Your task to perform on an android device: Go to Google maps Image 0: 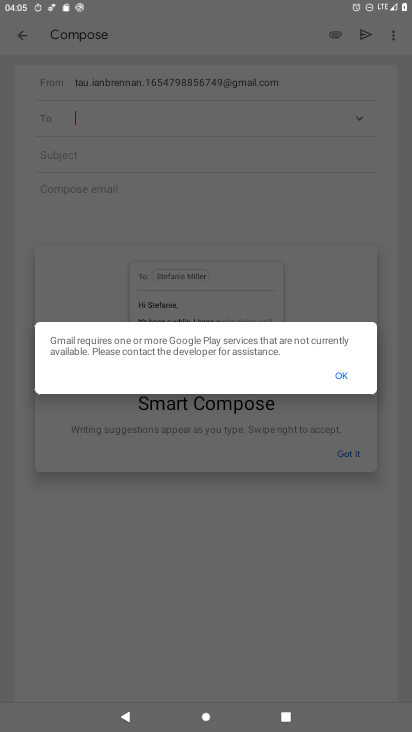
Step 0: press home button
Your task to perform on an android device: Go to Google maps Image 1: 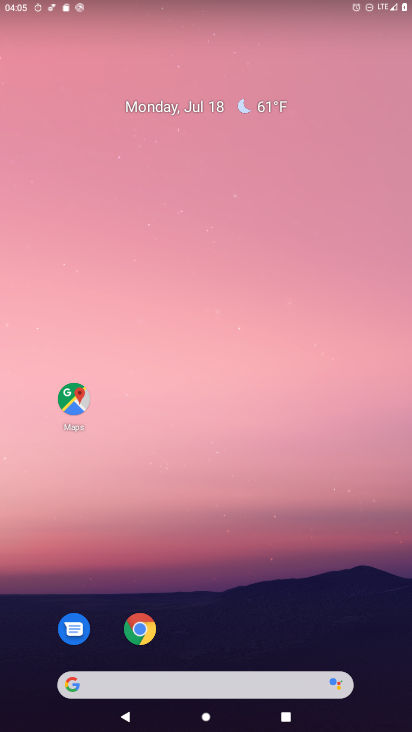
Step 1: click (73, 399)
Your task to perform on an android device: Go to Google maps Image 2: 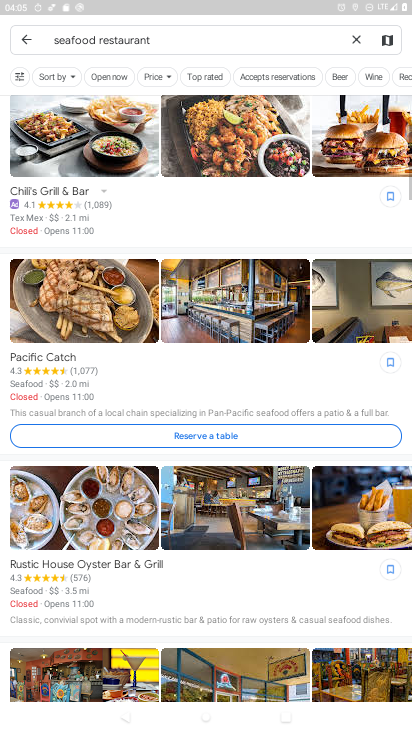
Step 2: task complete